Your task to perform on an android device: Open Google Maps and go to "Timeline" Image 0: 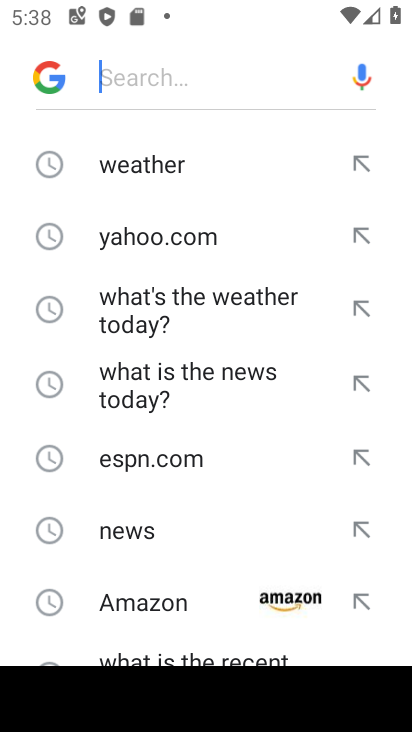
Step 0: press home button
Your task to perform on an android device: Open Google Maps and go to "Timeline" Image 1: 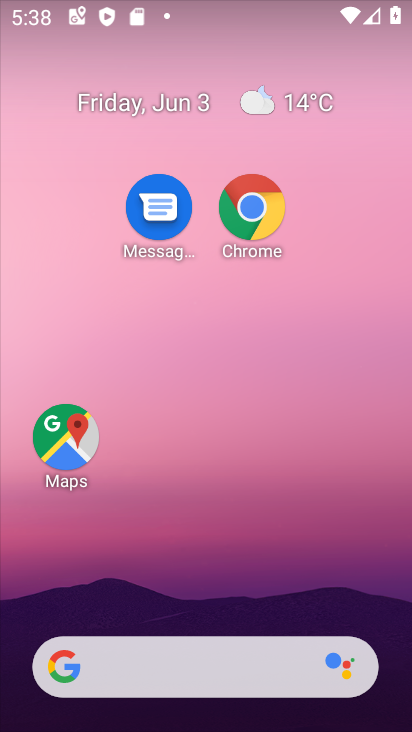
Step 1: click (49, 439)
Your task to perform on an android device: Open Google Maps and go to "Timeline" Image 2: 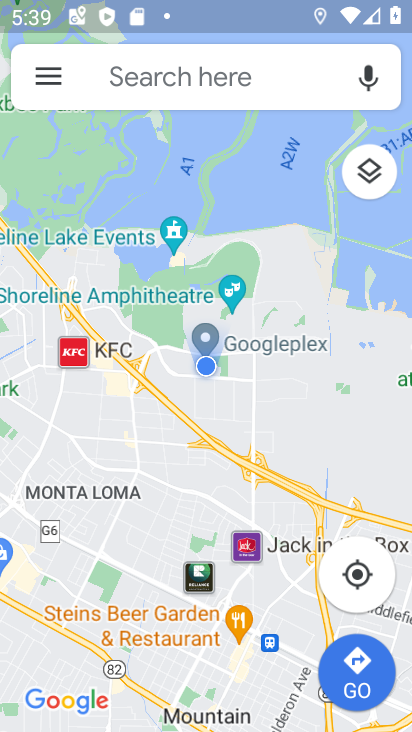
Step 2: click (43, 80)
Your task to perform on an android device: Open Google Maps and go to "Timeline" Image 3: 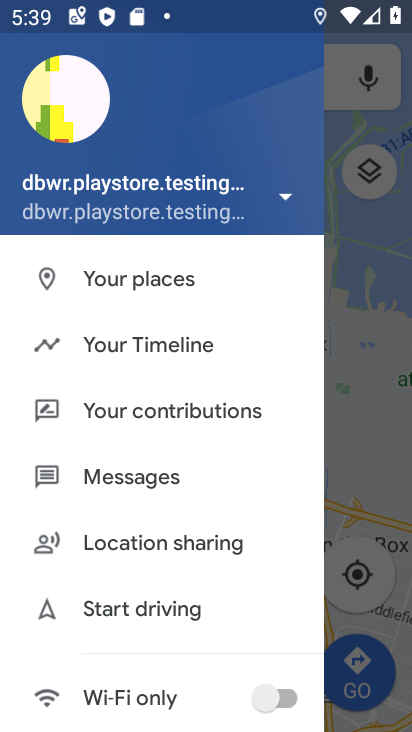
Step 3: click (135, 346)
Your task to perform on an android device: Open Google Maps and go to "Timeline" Image 4: 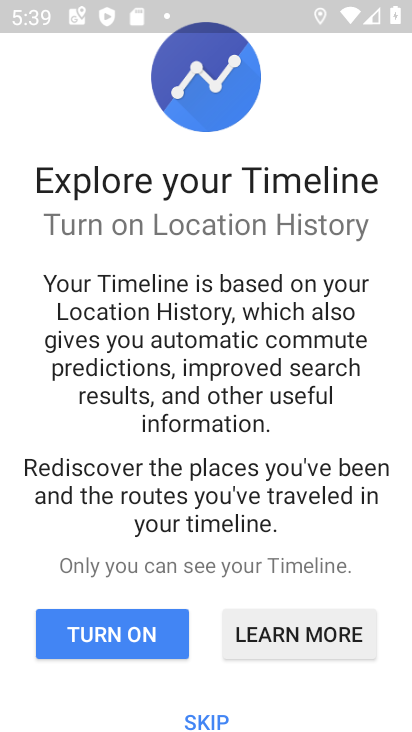
Step 4: click (198, 712)
Your task to perform on an android device: Open Google Maps and go to "Timeline" Image 5: 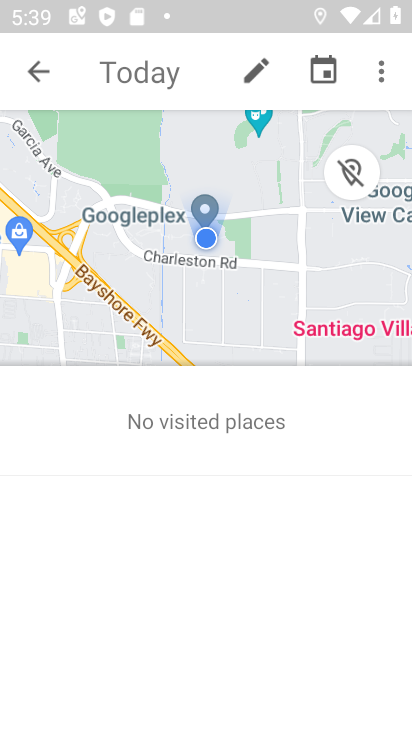
Step 5: task complete